Your task to perform on an android device: turn off wifi Image 0: 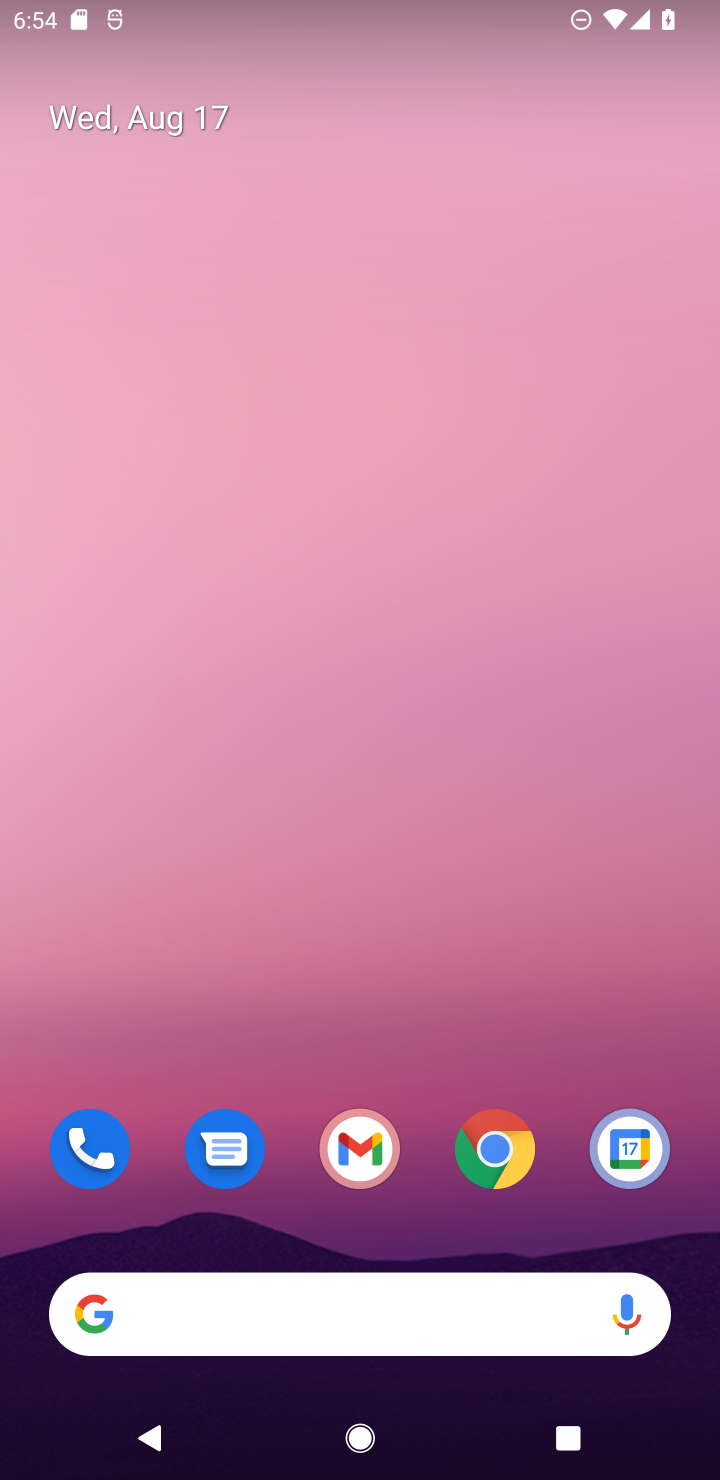
Step 0: drag from (417, 1062) to (353, 166)
Your task to perform on an android device: turn off wifi Image 1: 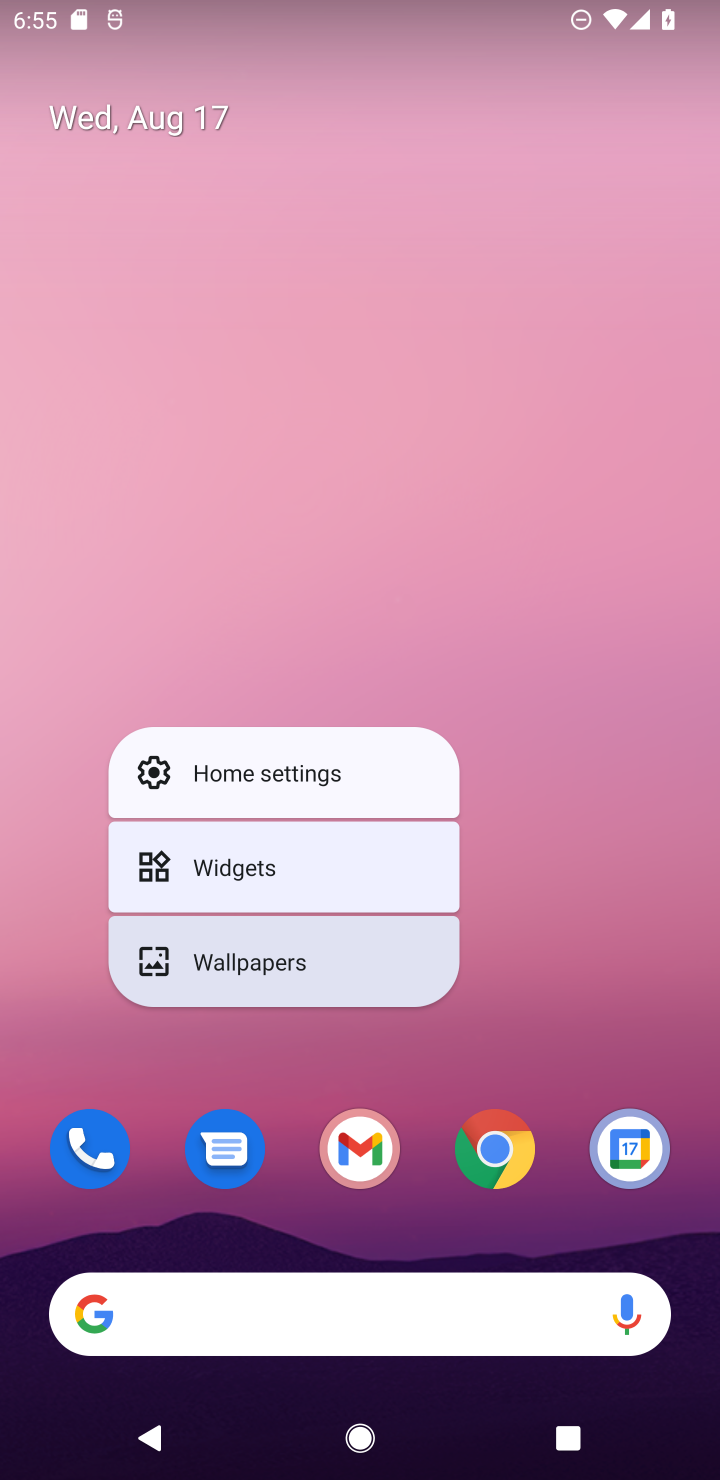
Step 1: click (515, 773)
Your task to perform on an android device: turn off wifi Image 2: 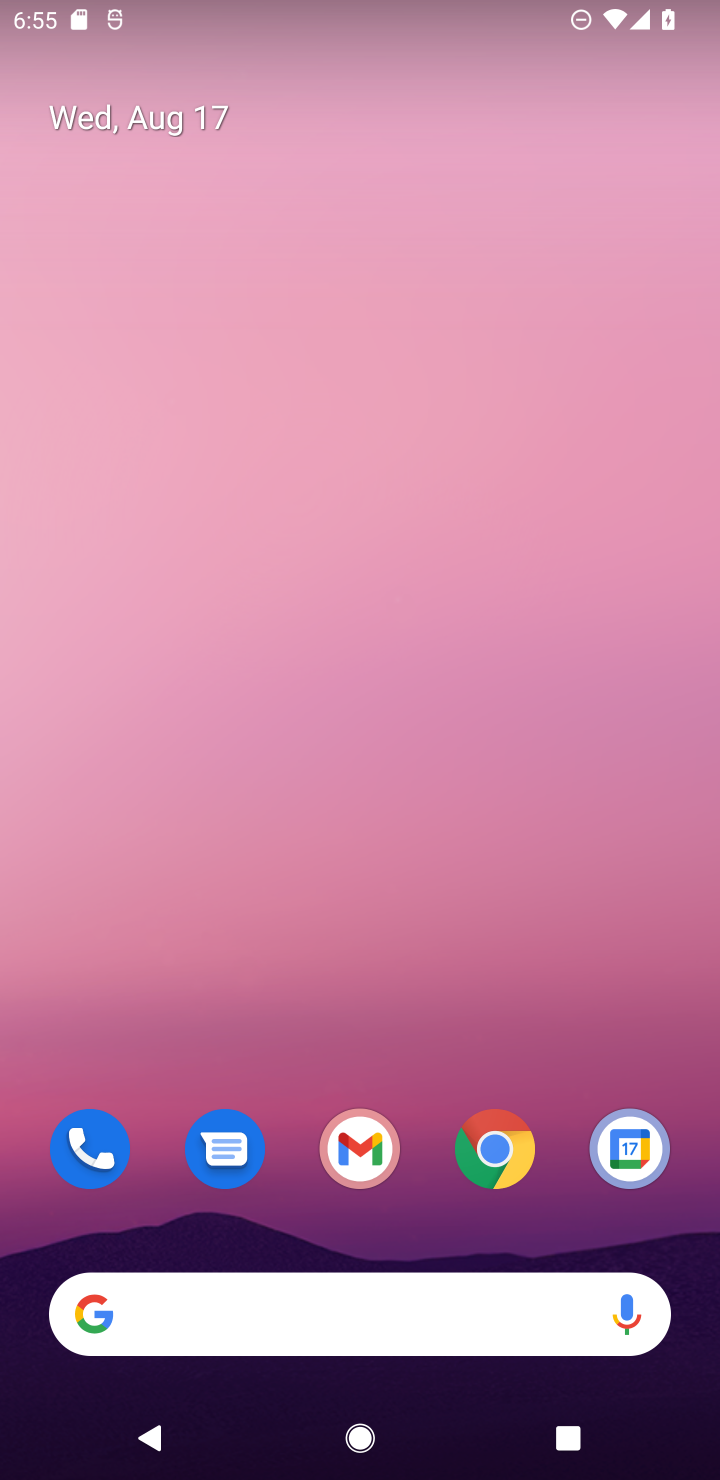
Step 2: drag from (418, 1230) to (398, 119)
Your task to perform on an android device: turn off wifi Image 3: 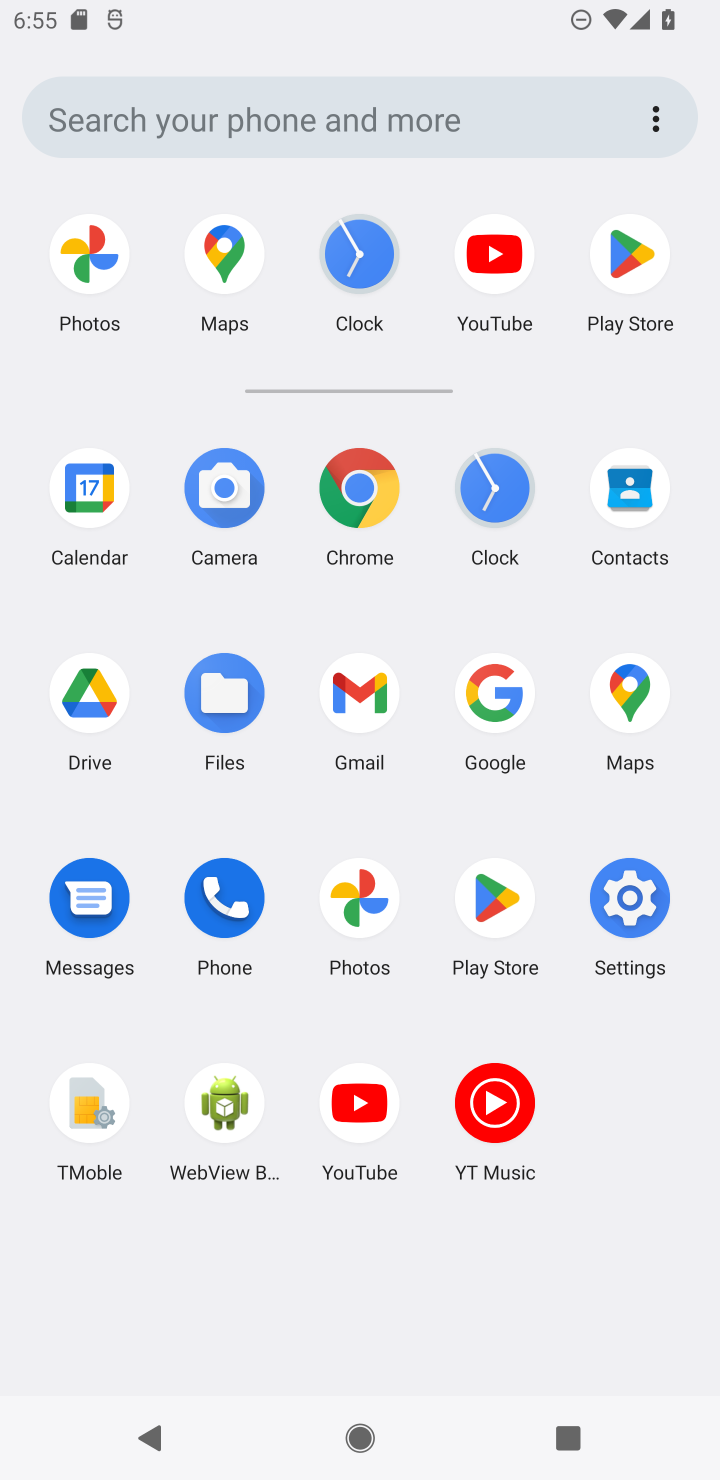
Step 3: click (632, 900)
Your task to perform on an android device: turn off wifi Image 4: 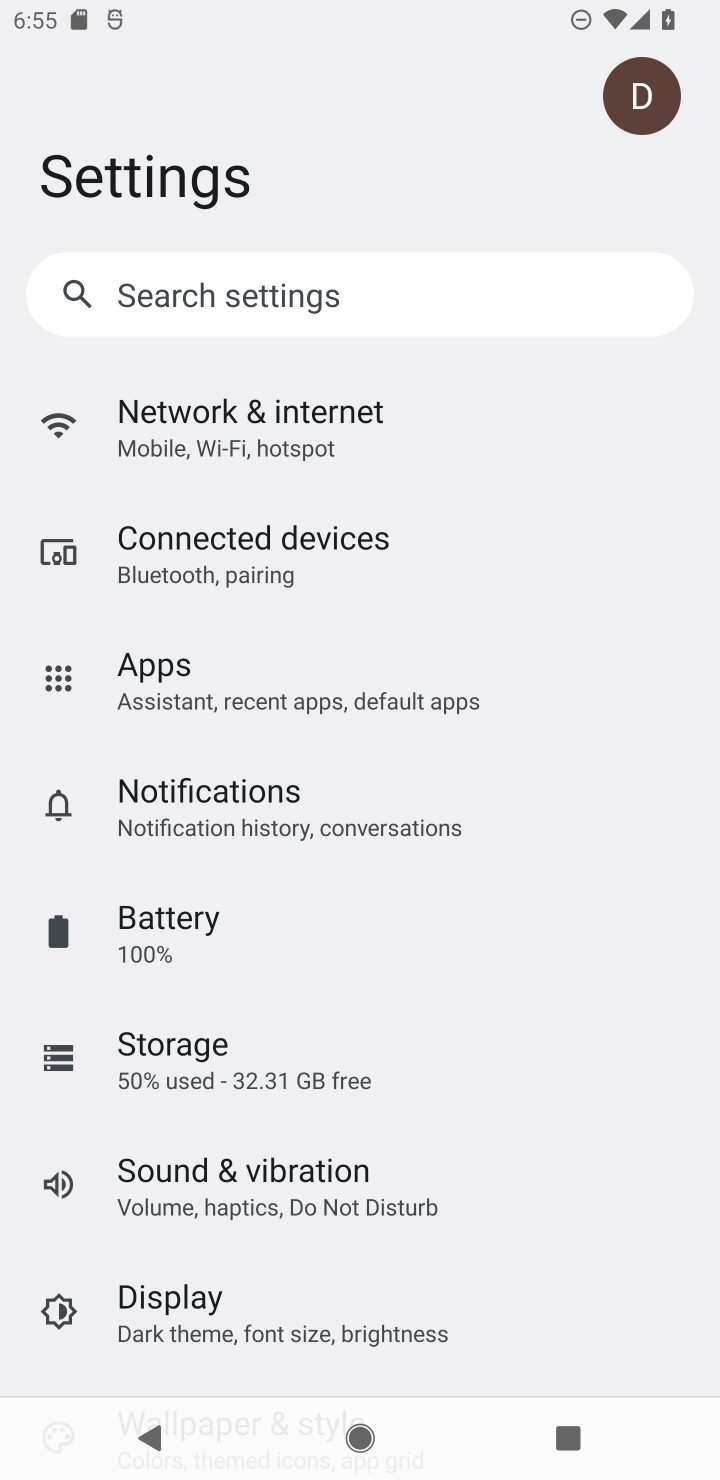
Step 4: click (268, 405)
Your task to perform on an android device: turn off wifi Image 5: 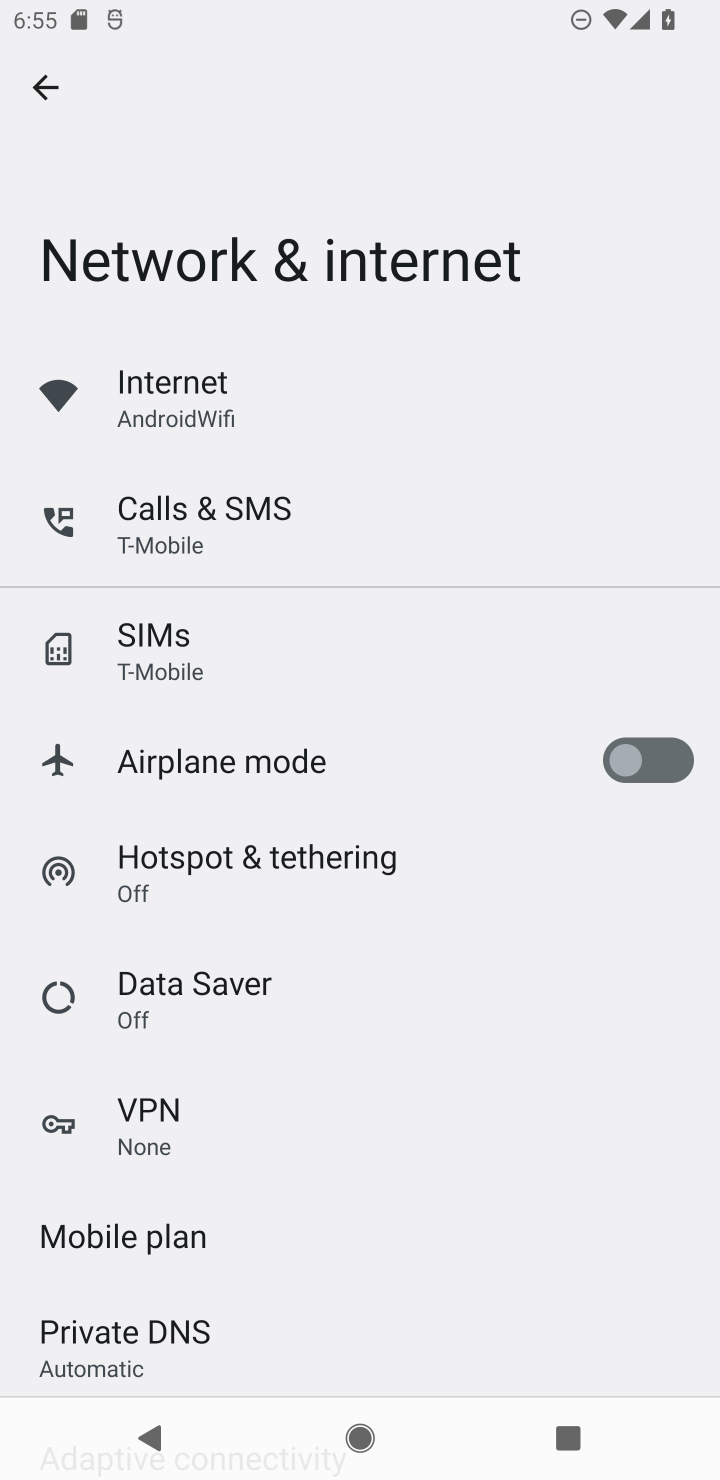
Step 5: click (186, 398)
Your task to perform on an android device: turn off wifi Image 6: 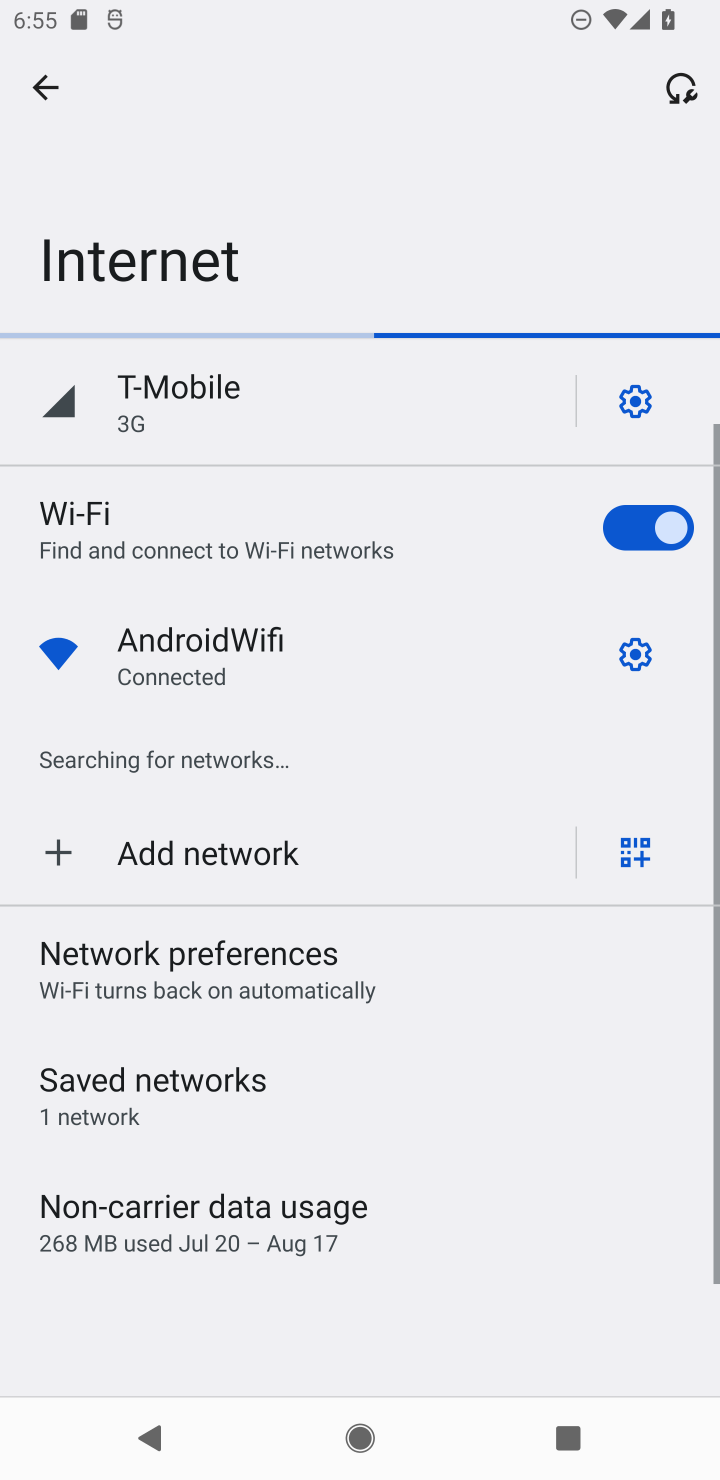
Step 6: click (672, 525)
Your task to perform on an android device: turn off wifi Image 7: 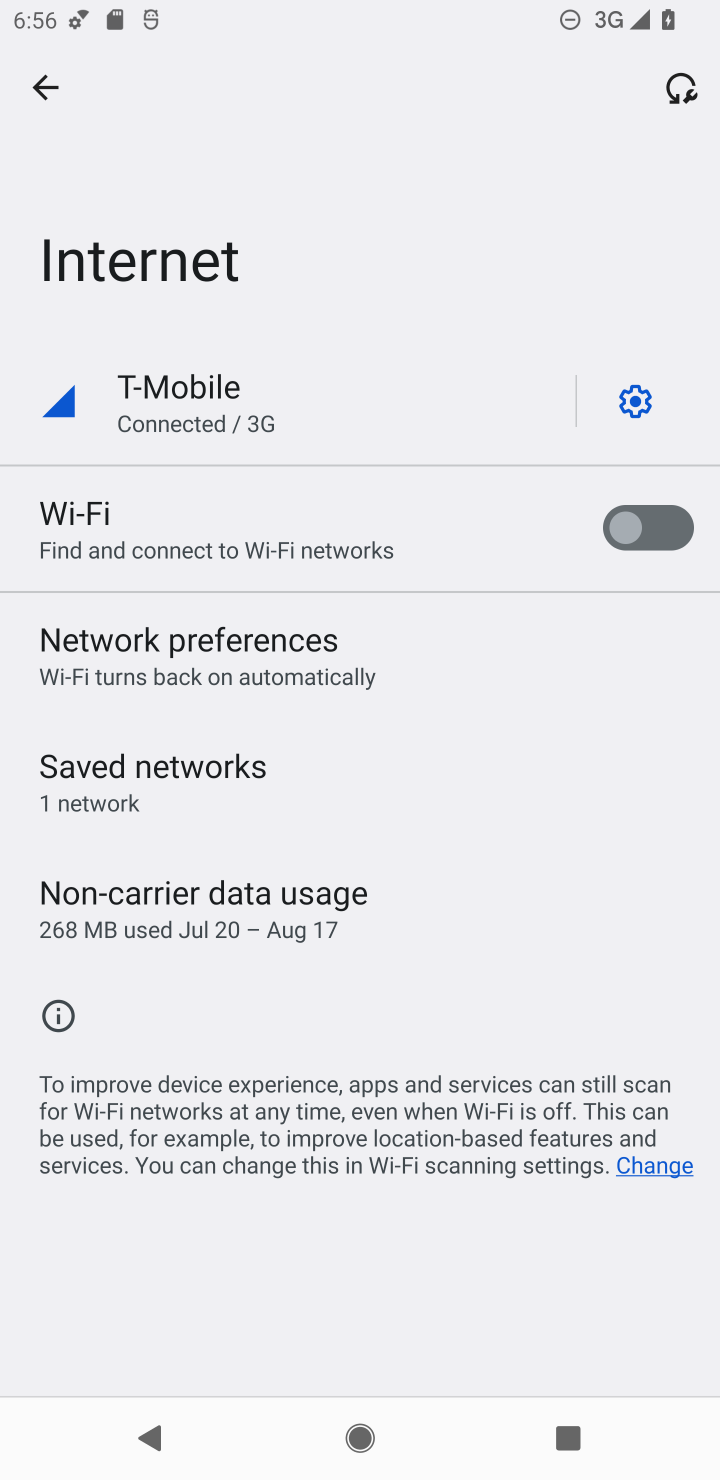
Step 7: task complete